Your task to perform on an android device: change the clock display to show seconds Image 0: 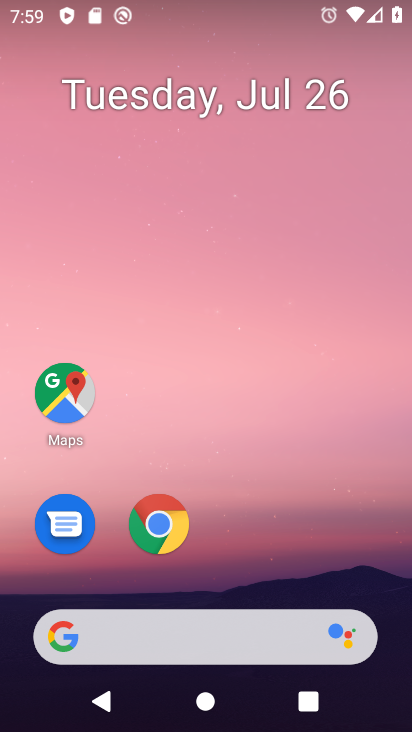
Step 0: drag from (254, 542) to (285, 87)
Your task to perform on an android device: change the clock display to show seconds Image 1: 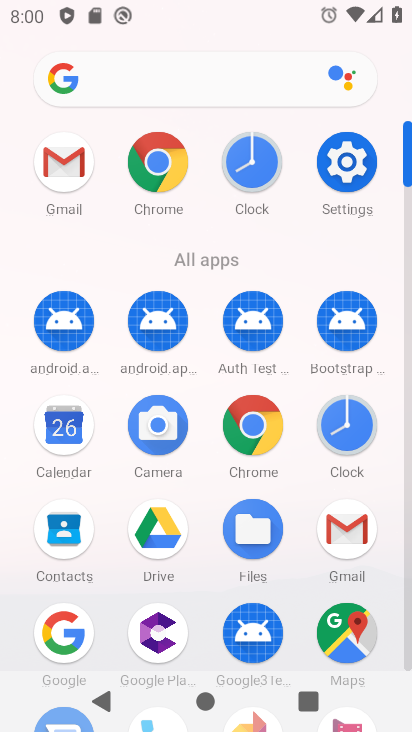
Step 1: click (267, 166)
Your task to perform on an android device: change the clock display to show seconds Image 2: 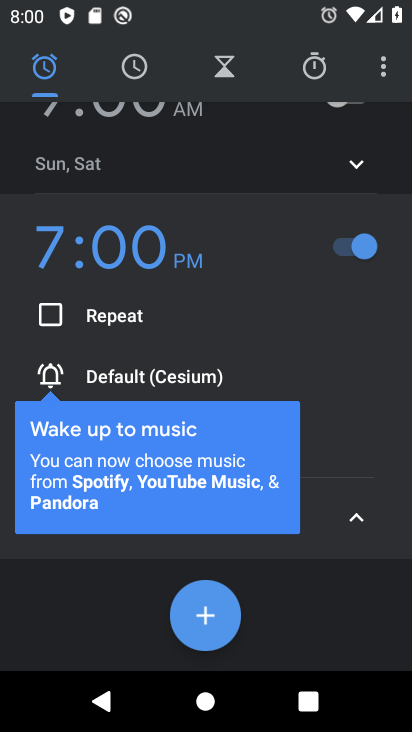
Step 2: click (133, 64)
Your task to perform on an android device: change the clock display to show seconds Image 3: 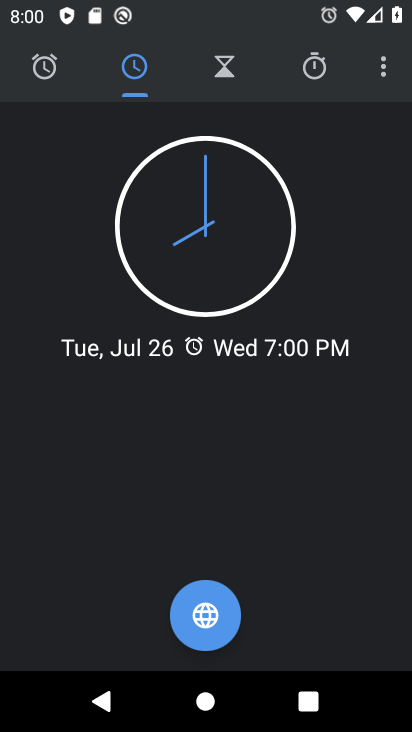
Step 3: click (386, 56)
Your task to perform on an android device: change the clock display to show seconds Image 4: 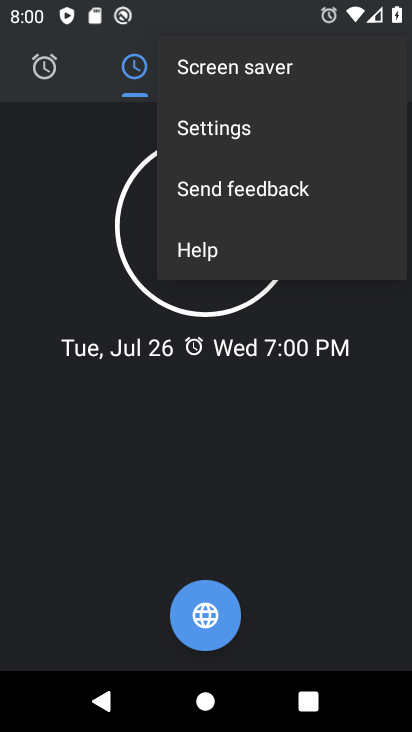
Step 4: click (297, 128)
Your task to perform on an android device: change the clock display to show seconds Image 5: 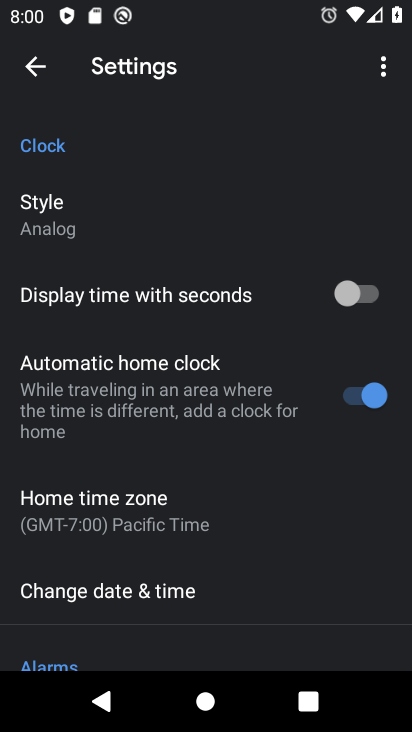
Step 5: click (362, 295)
Your task to perform on an android device: change the clock display to show seconds Image 6: 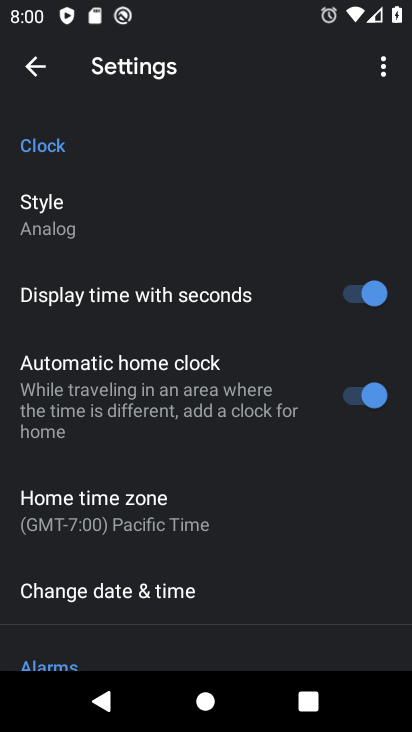
Step 6: click (36, 73)
Your task to perform on an android device: change the clock display to show seconds Image 7: 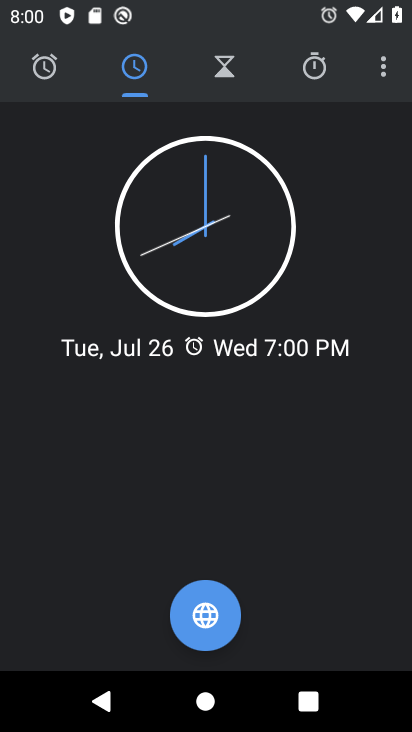
Step 7: task complete